Your task to perform on an android device: star an email in the gmail app Image 0: 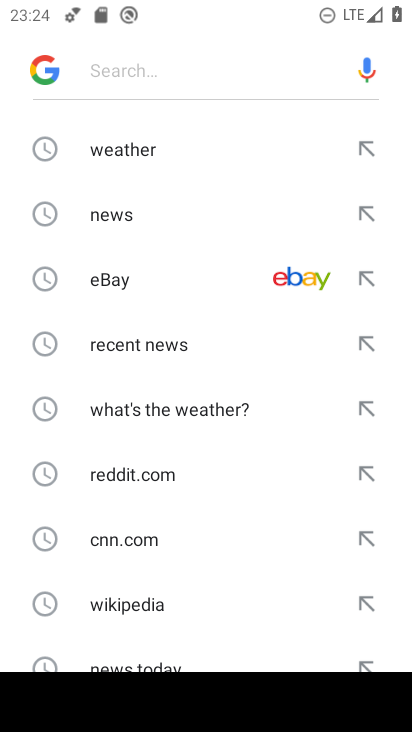
Step 0: press back button
Your task to perform on an android device: star an email in the gmail app Image 1: 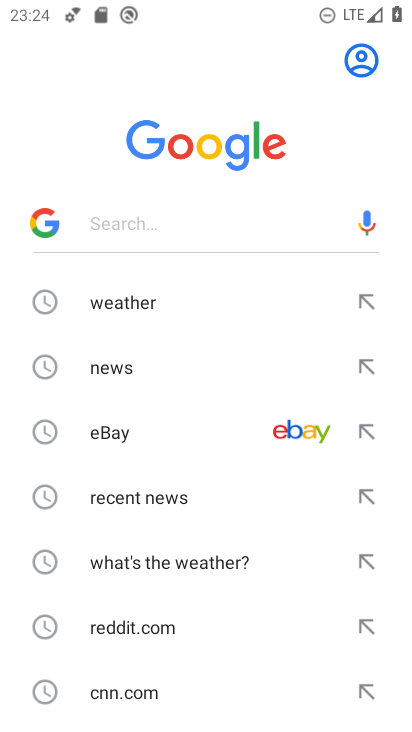
Step 1: press home button
Your task to perform on an android device: star an email in the gmail app Image 2: 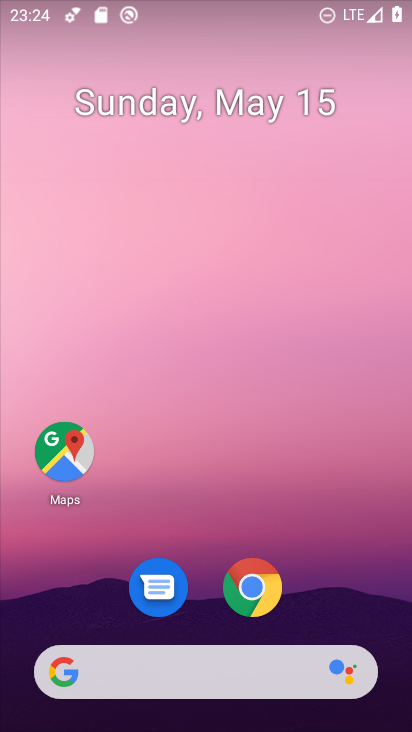
Step 2: drag from (206, 627) to (207, 191)
Your task to perform on an android device: star an email in the gmail app Image 3: 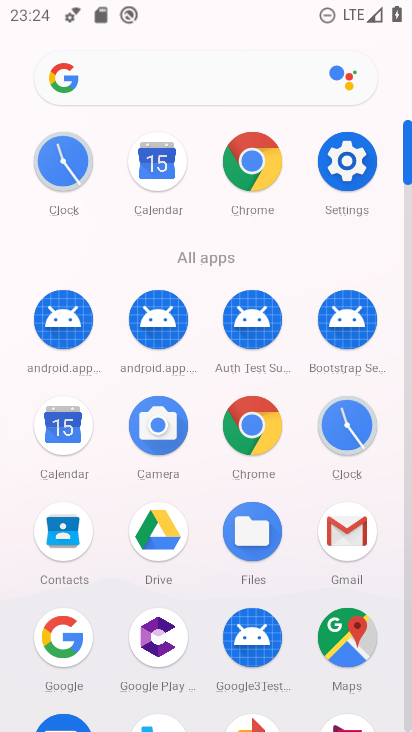
Step 3: click (323, 538)
Your task to perform on an android device: star an email in the gmail app Image 4: 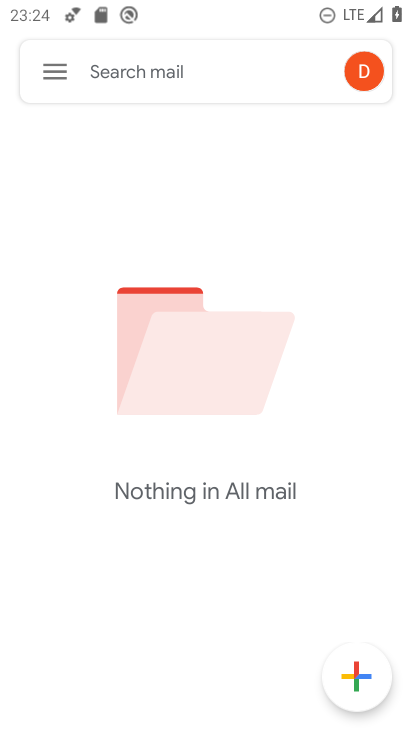
Step 4: click (46, 70)
Your task to perform on an android device: star an email in the gmail app Image 5: 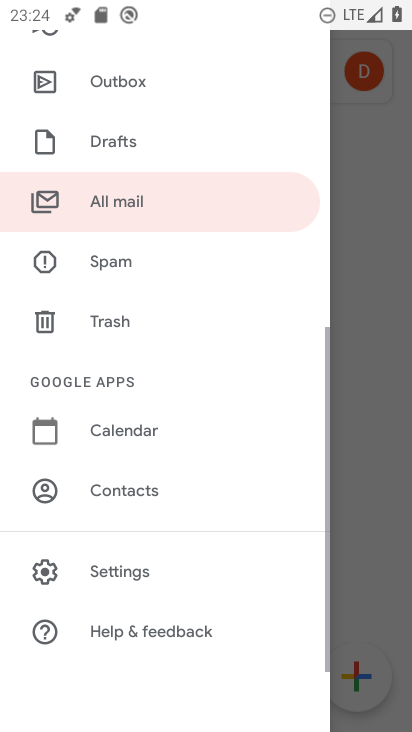
Step 5: click (115, 208)
Your task to perform on an android device: star an email in the gmail app Image 6: 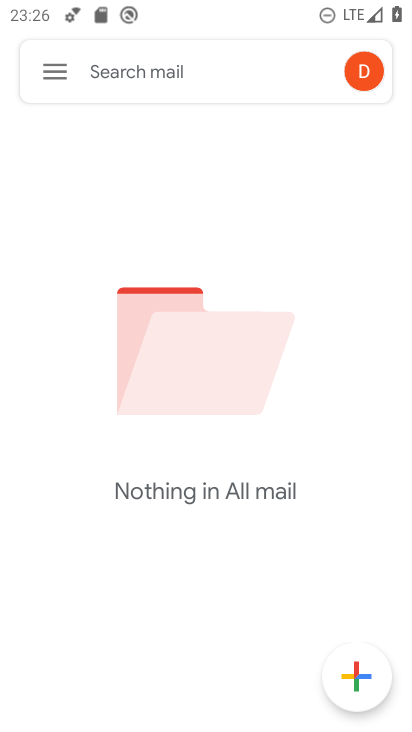
Step 6: task complete